Your task to perform on an android device: Go to privacy settings Image 0: 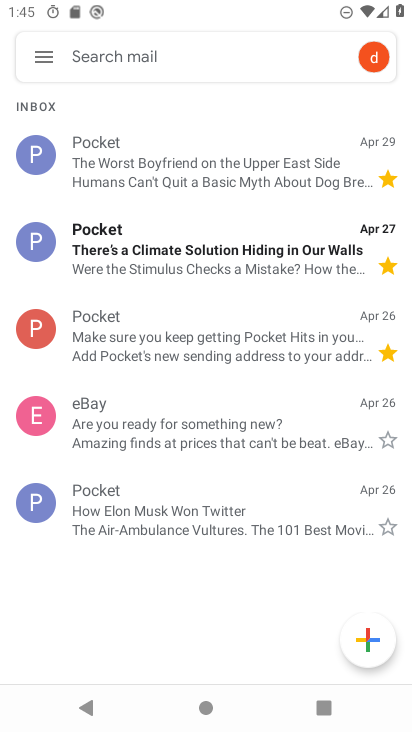
Step 0: press home button
Your task to perform on an android device: Go to privacy settings Image 1: 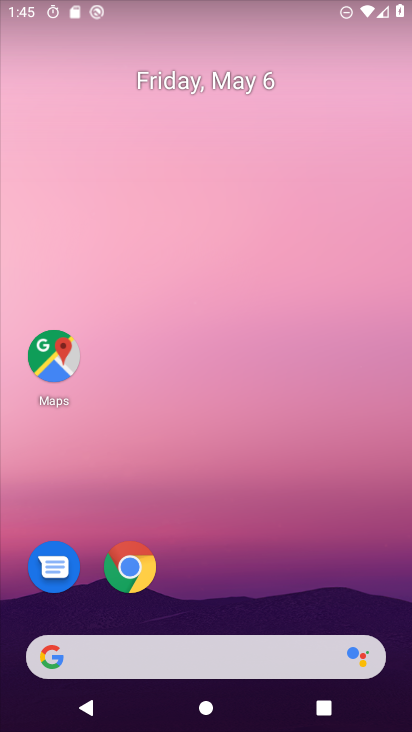
Step 1: drag from (259, 675) to (328, 247)
Your task to perform on an android device: Go to privacy settings Image 2: 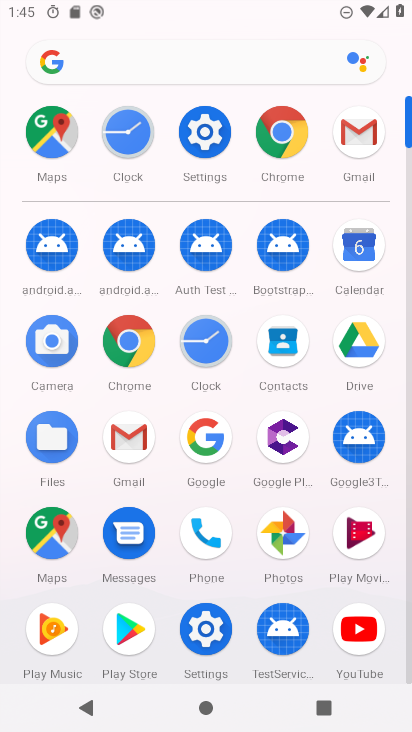
Step 2: click (204, 134)
Your task to perform on an android device: Go to privacy settings Image 3: 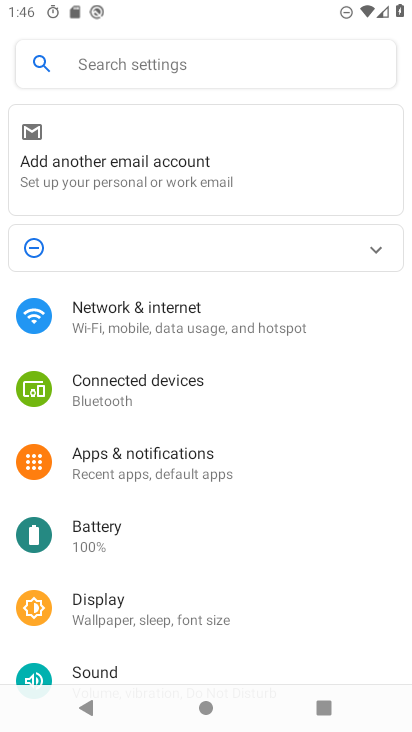
Step 3: click (168, 68)
Your task to perform on an android device: Go to privacy settings Image 4: 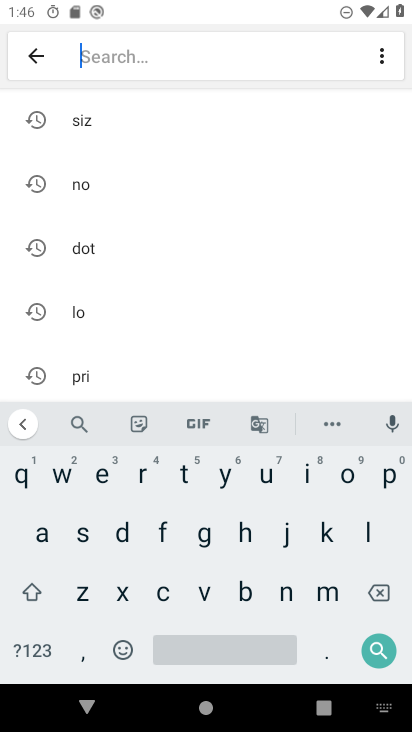
Step 4: click (399, 495)
Your task to perform on an android device: Go to privacy settings Image 5: 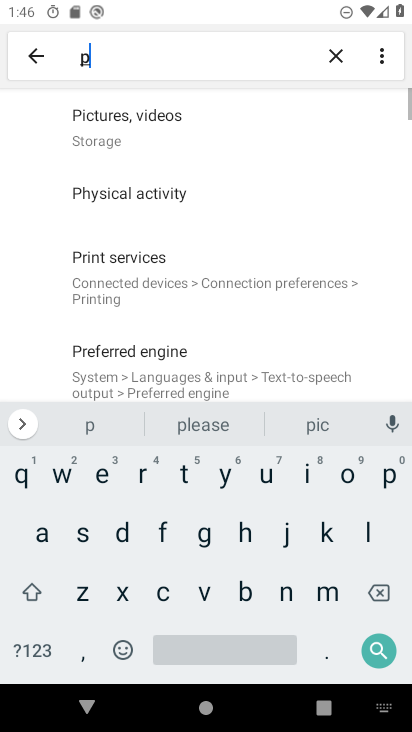
Step 5: click (140, 475)
Your task to perform on an android device: Go to privacy settings Image 6: 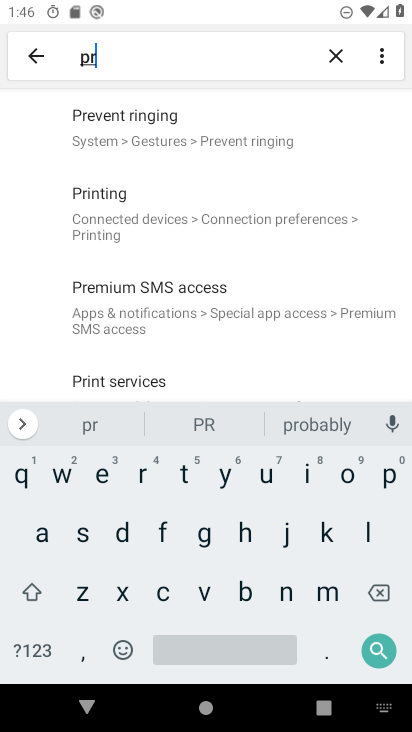
Step 6: click (302, 474)
Your task to perform on an android device: Go to privacy settings Image 7: 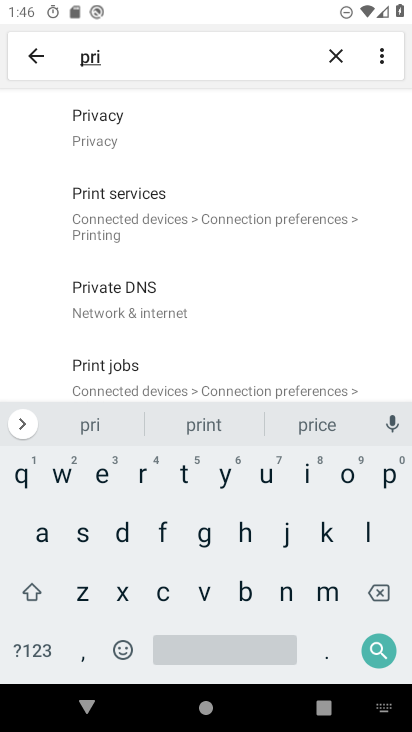
Step 7: click (123, 139)
Your task to perform on an android device: Go to privacy settings Image 8: 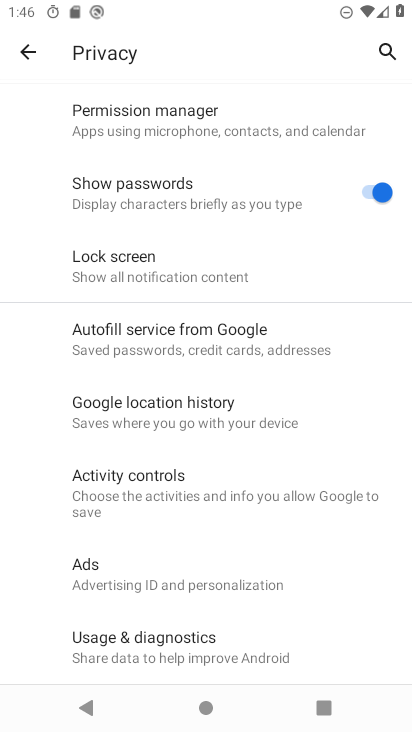
Step 8: task complete